Your task to perform on an android device: Add razer deathadder to the cart on ebay.com, then select checkout. Image 0: 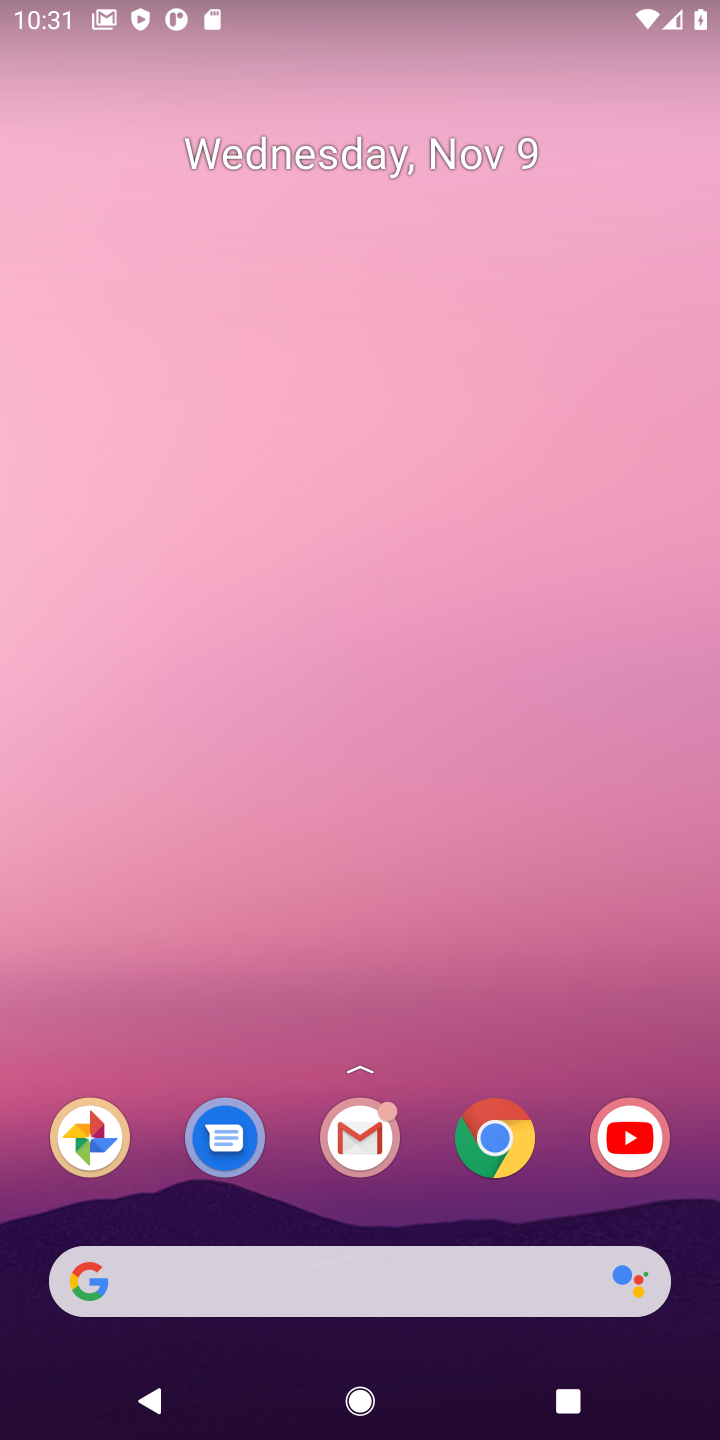
Step 0: drag from (414, 1210) to (407, 177)
Your task to perform on an android device: Add razer deathadder to the cart on ebay.com, then select checkout. Image 1: 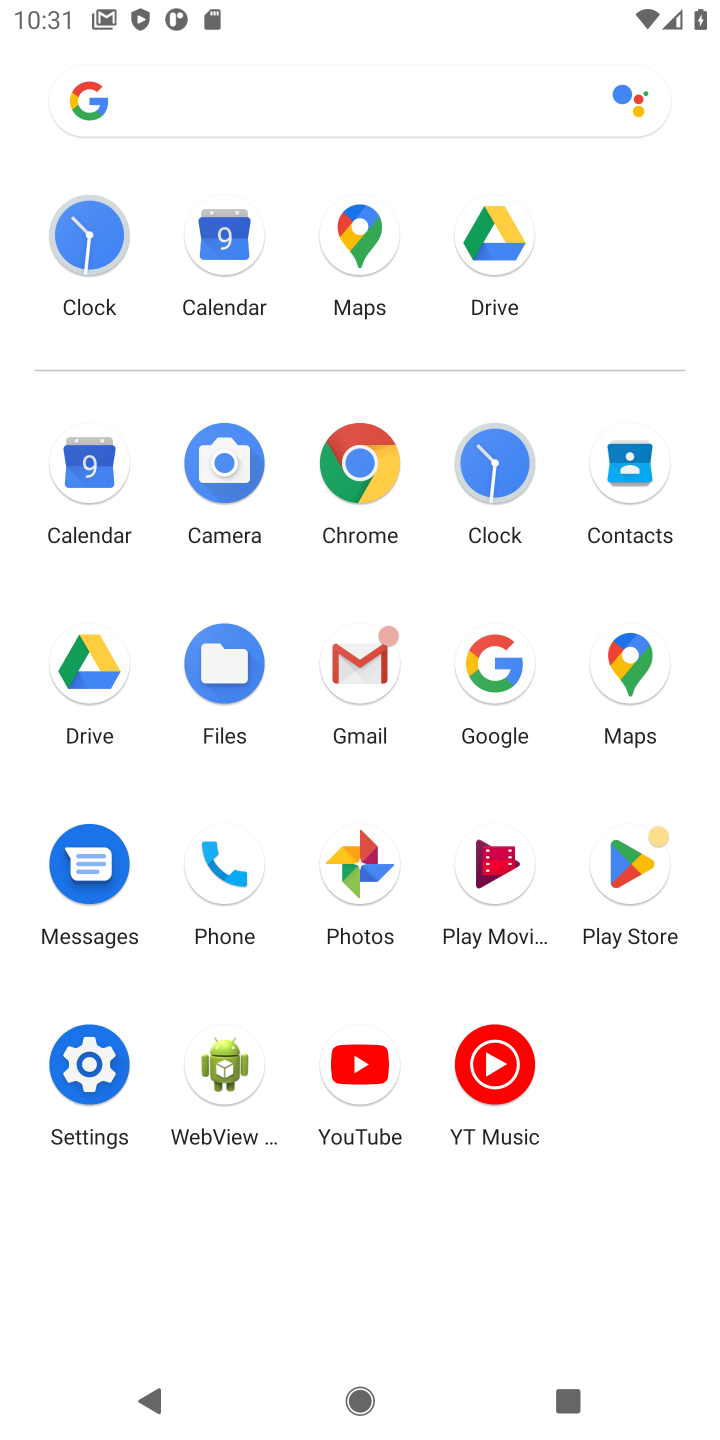
Step 1: click (342, 452)
Your task to perform on an android device: Add razer deathadder to the cart on ebay.com, then select checkout. Image 2: 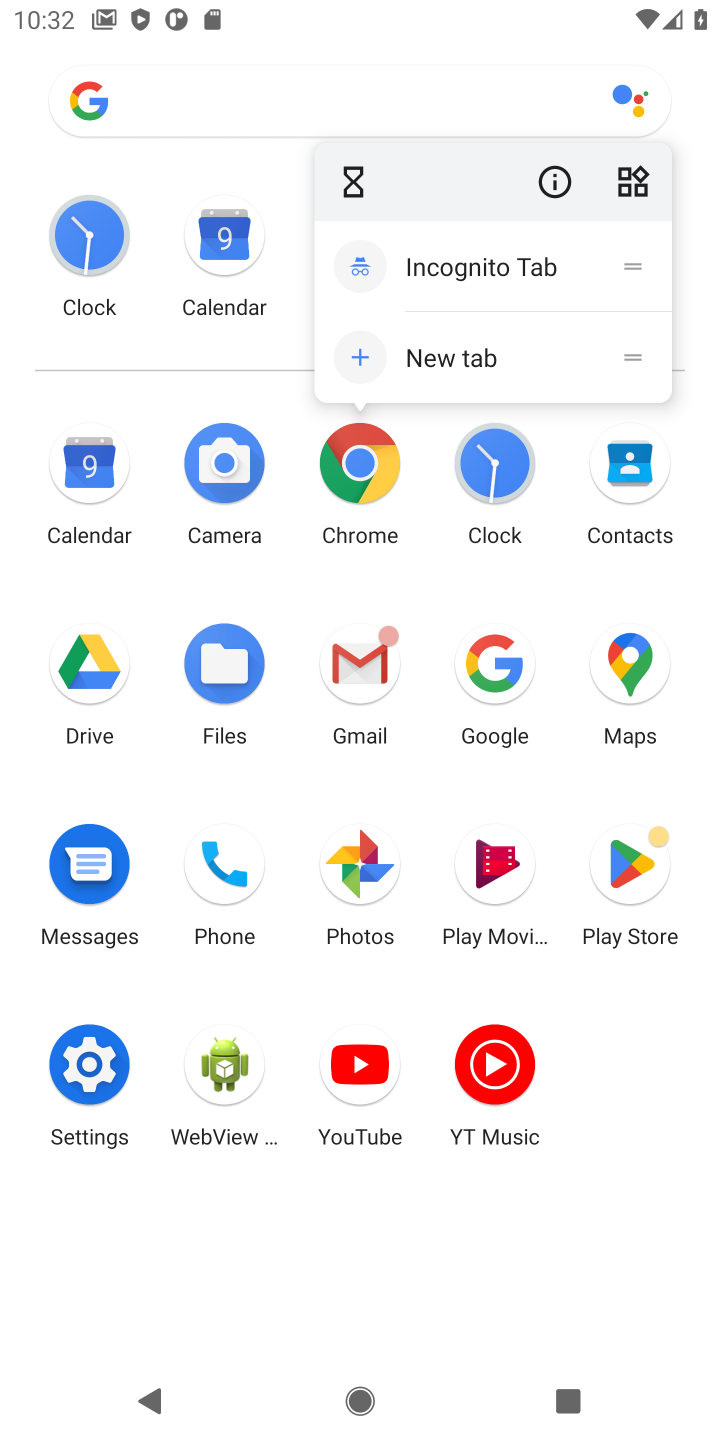
Step 2: click (356, 458)
Your task to perform on an android device: Add razer deathadder to the cart on ebay.com, then select checkout. Image 3: 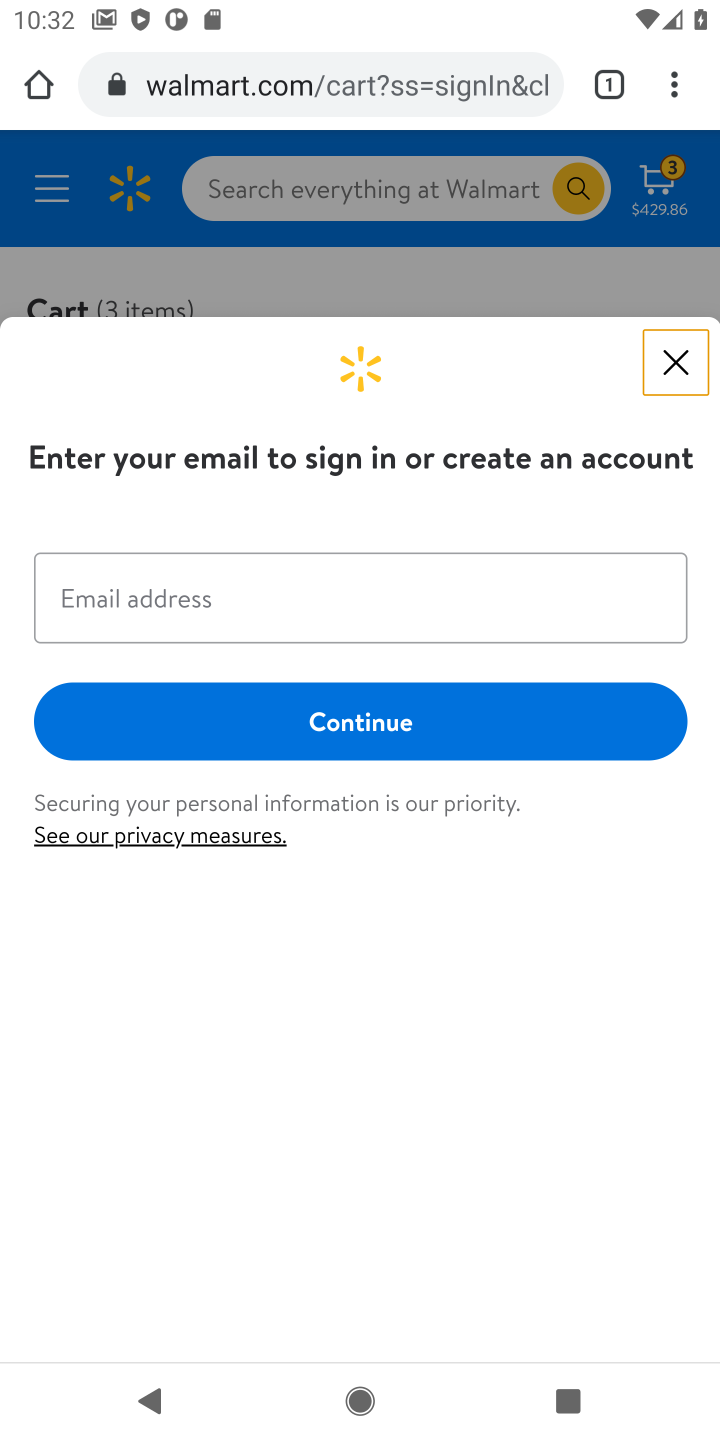
Step 3: click (413, 103)
Your task to perform on an android device: Add razer deathadder to the cart on ebay.com, then select checkout. Image 4: 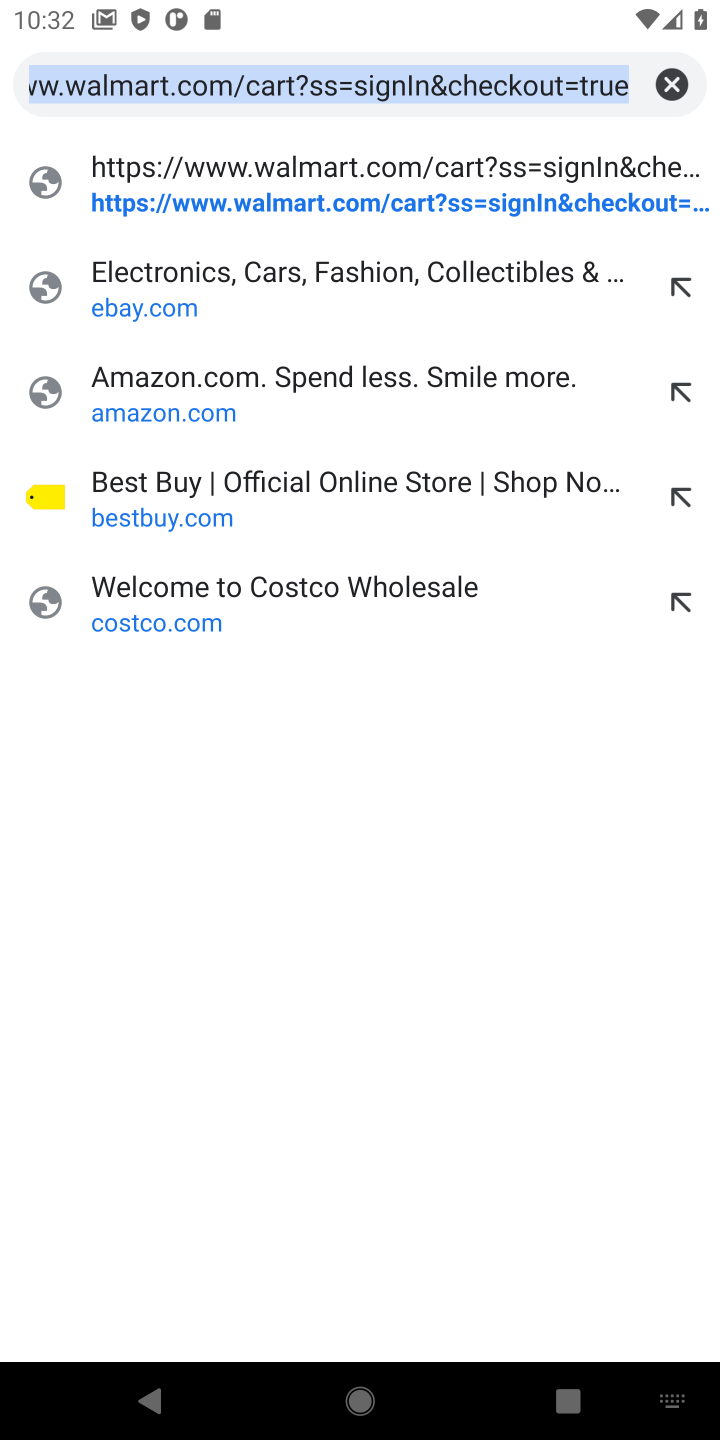
Step 4: type "ebay.com"
Your task to perform on an android device: Add razer deathadder to the cart on ebay.com, then select checkout. Image 5: 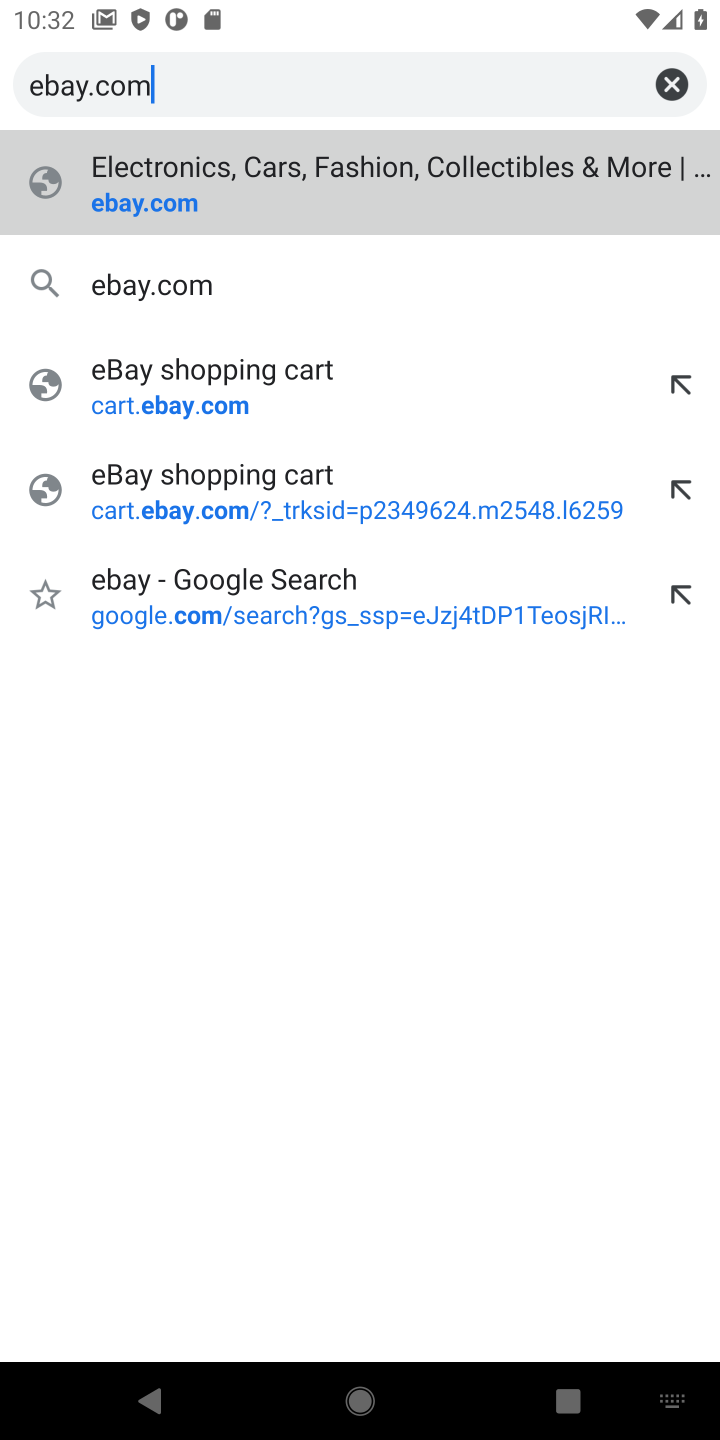
Step 5: press enter
Your task to perform on an android device: Add razer deathadder to the cart on ebay.com, then select checkout. Image 6: 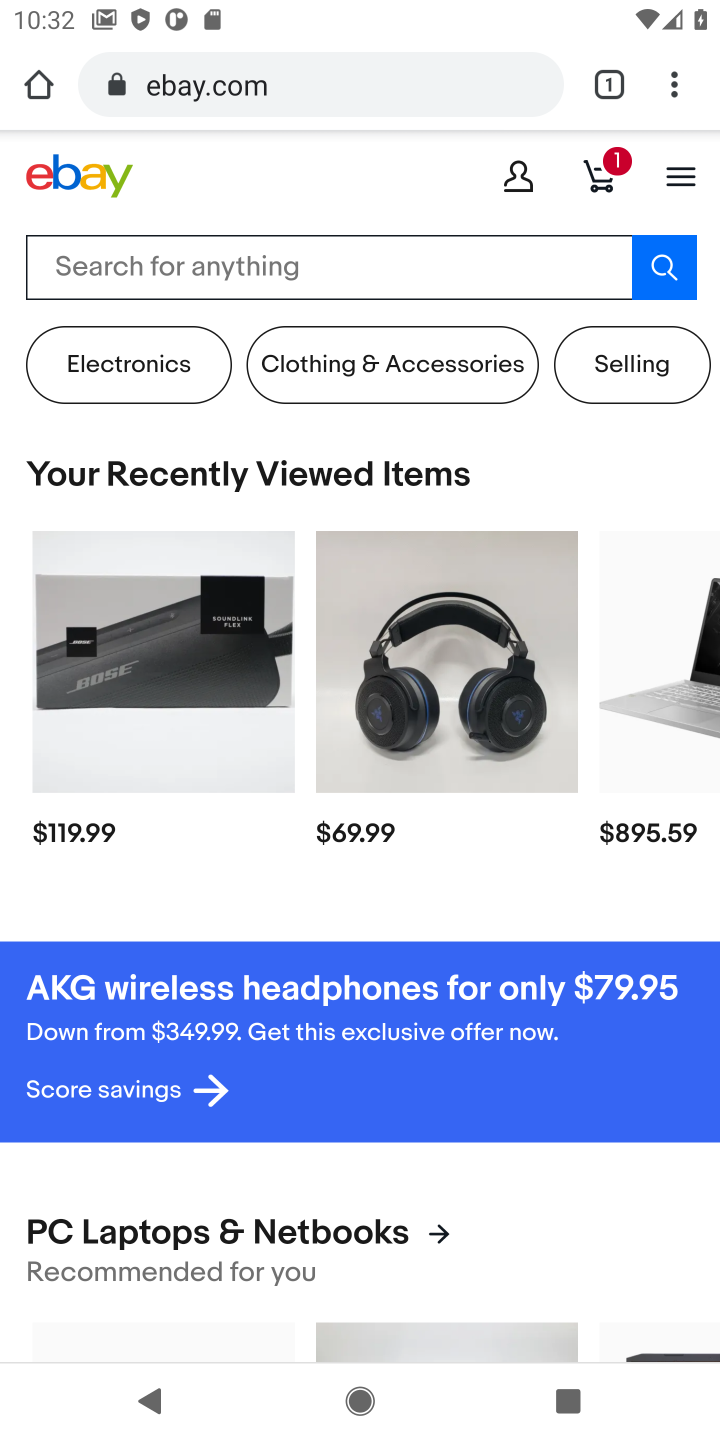
Step 6: click (339, 268)
Your task to perform on an android device: Add razer deathadder to the cart on ebay.com, then select checkout. Image 7: 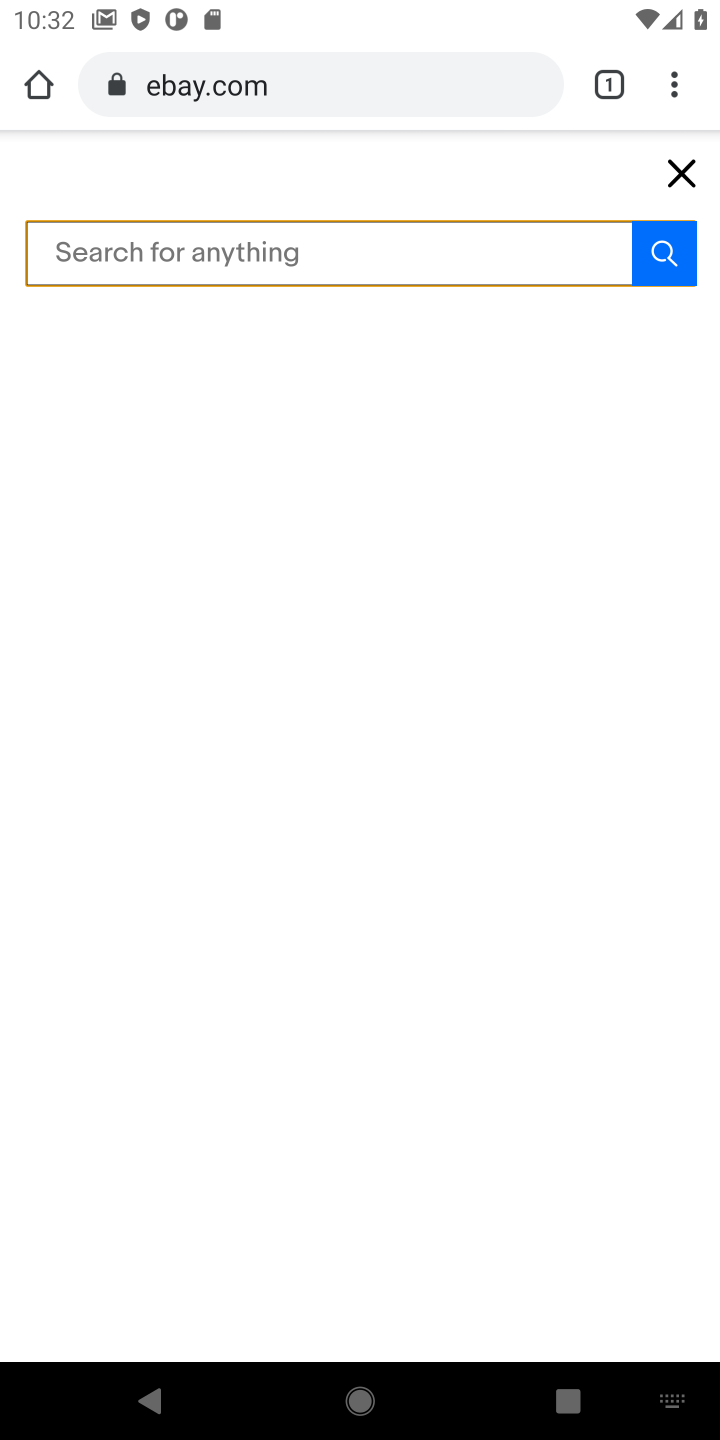
Step 7: type "razer deathadder"
Your task to perform on an android device: Add razer deathadder to the cart on ebay.com, then select checkout. Image 8: 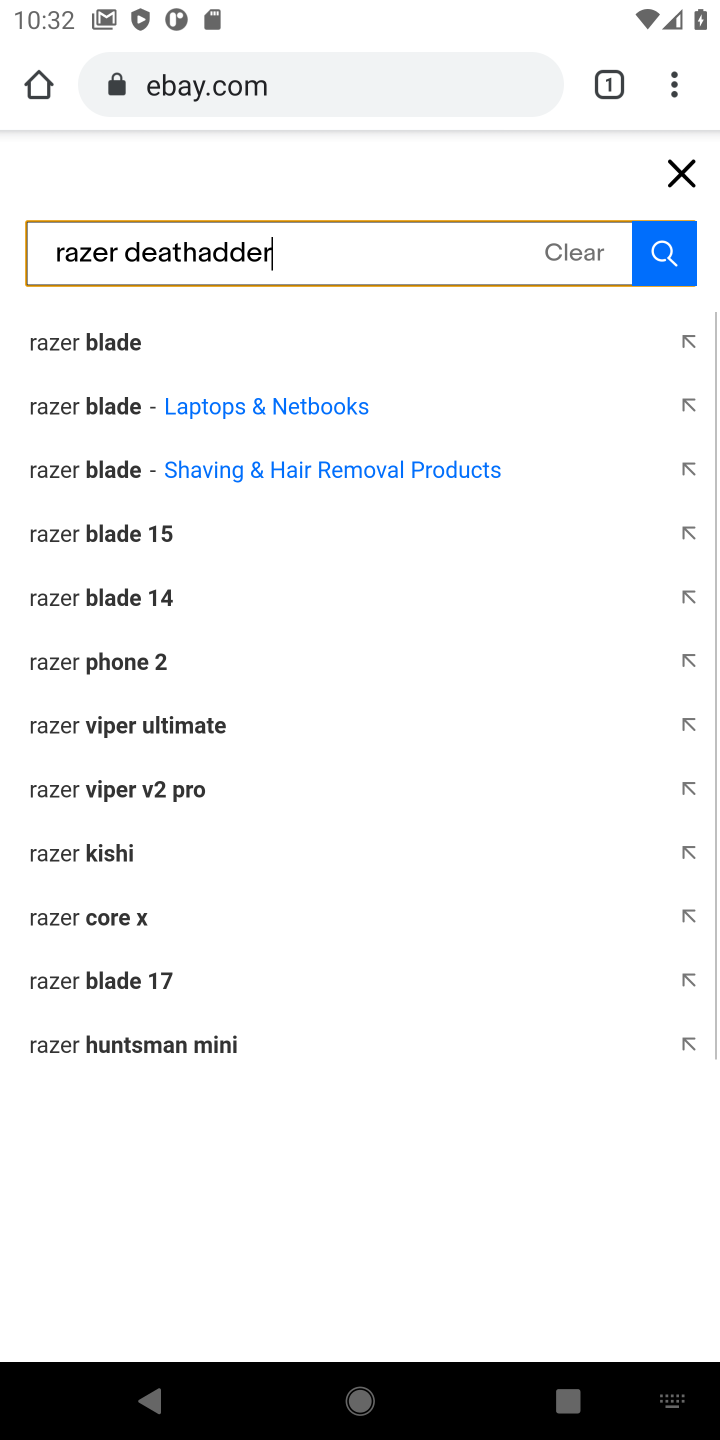
Step 8: press enter
Your task to perform on an android device: Add razer deathadder to the cart on ebay.com, then select checkout. Image 9: 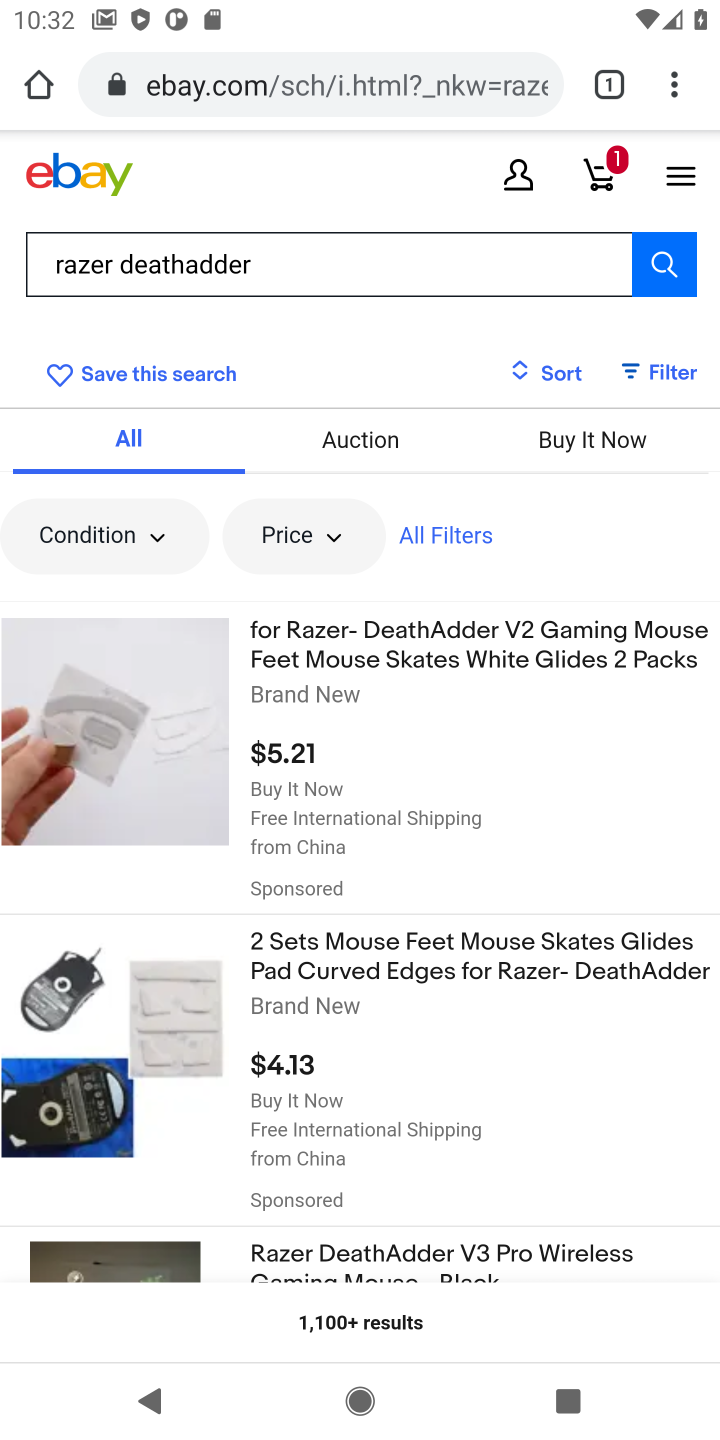
Step 9: click (532, 665)
Your task to perform on an android device: Add razer deathadder to the cart on ebay.com, then select checkout. Image 10: 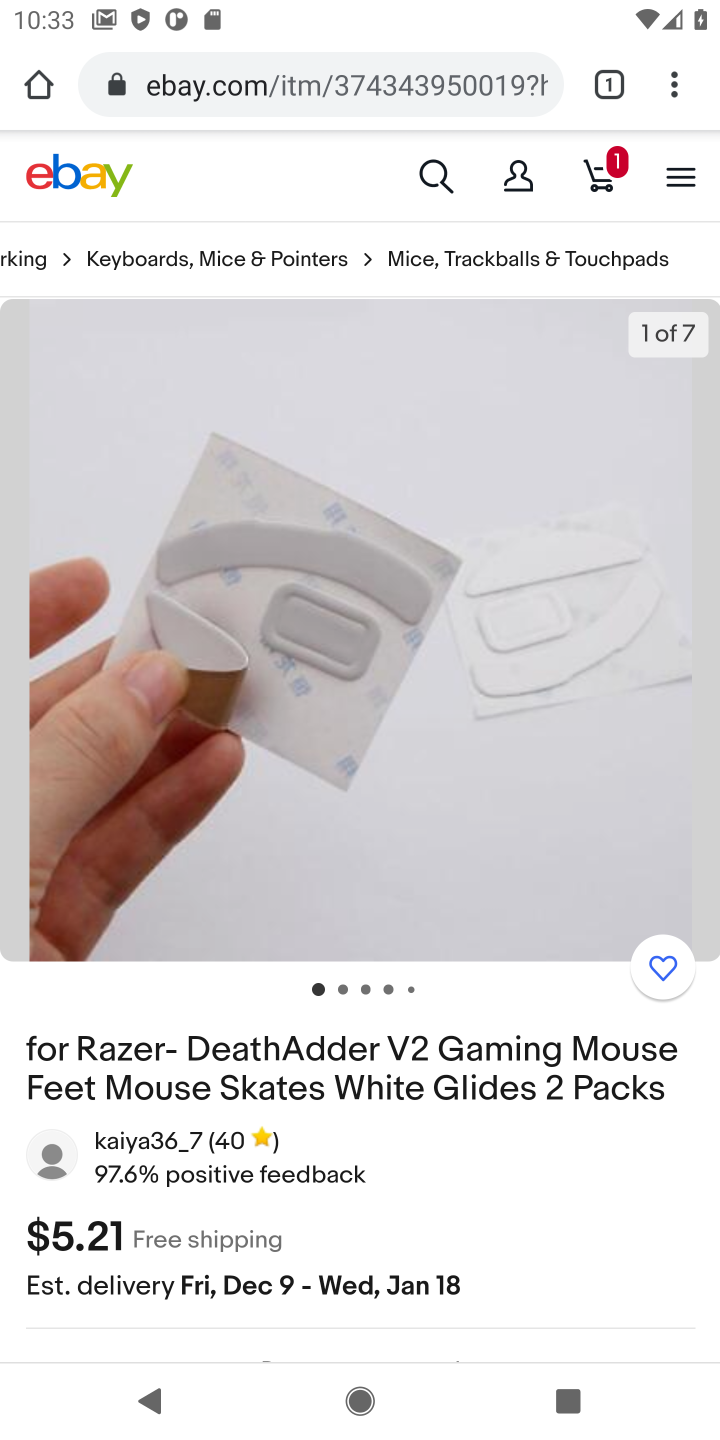
Step 10: drag from (557, 812) to (484, 139)
Your task to perform on an android device: Add razer deathadder to the cart on ebay.com, then select checkout. Image 11: 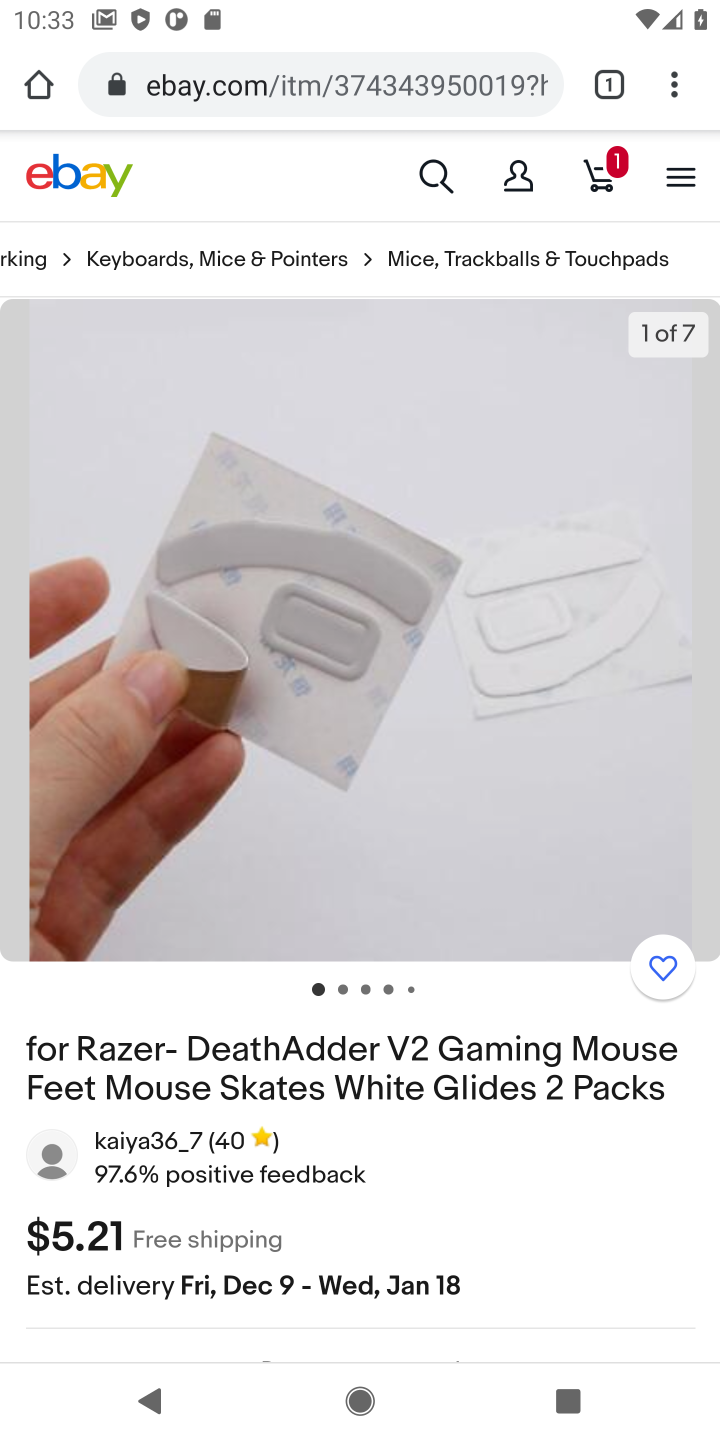
Step 11: drag from (496, 1022) to (447, 150)
Your task to perform on an android device: Add razer deathadder to the cart on ebay.com, then select checkout. Image 12: 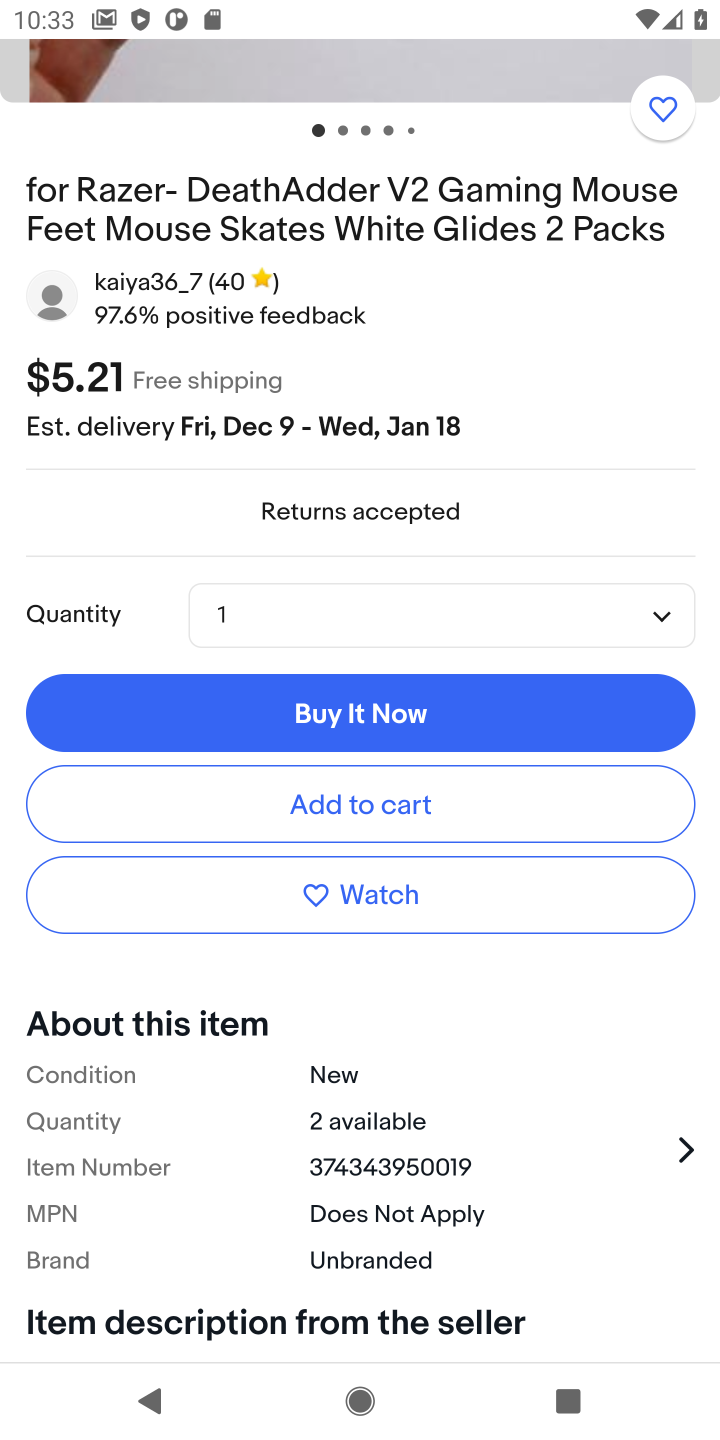
Step 12: click (398, 803)
Your task to perform on an android device: Add razer deathadder to the cart on ebay.com, then select checkout. Image 13: 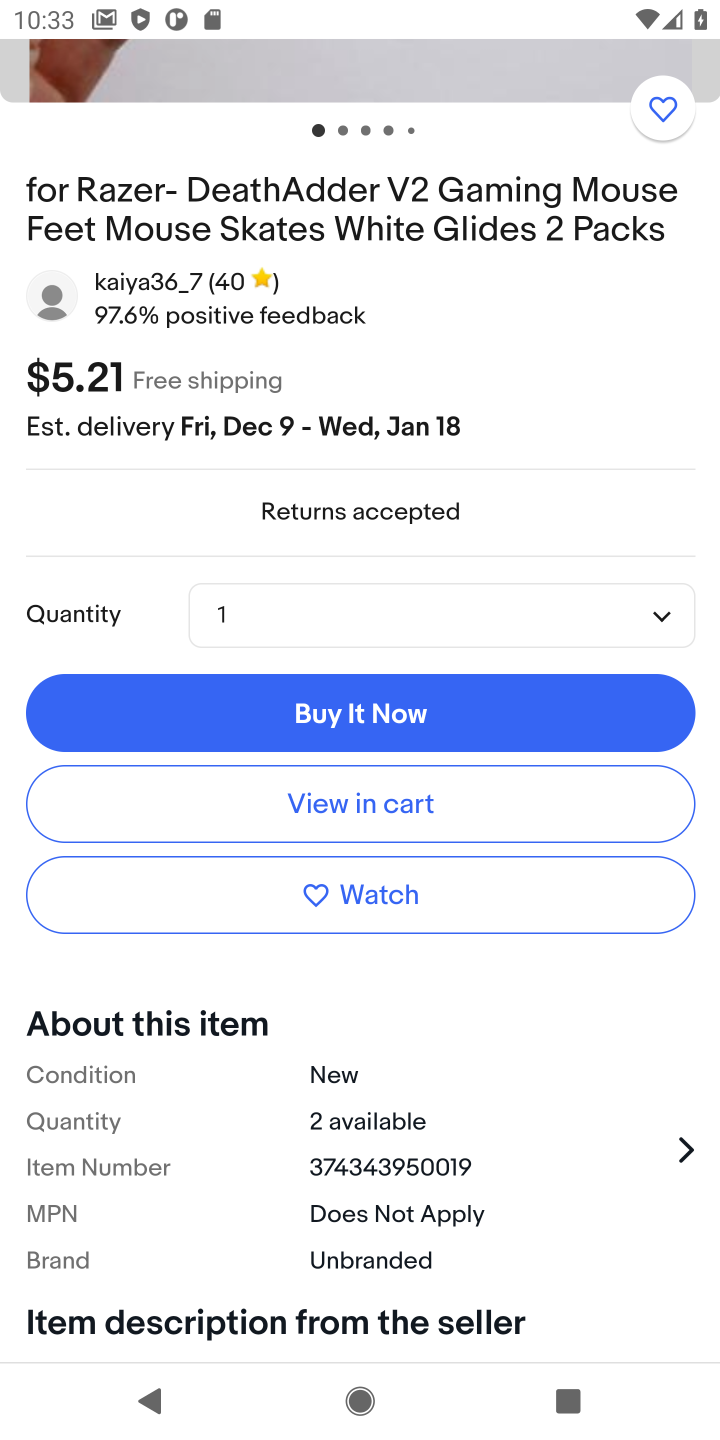
Step 13: click (399, 797)
Your task to perform on an android device: Add razer deathadder to the cart on ebay.com, then select checkout. Image 14: 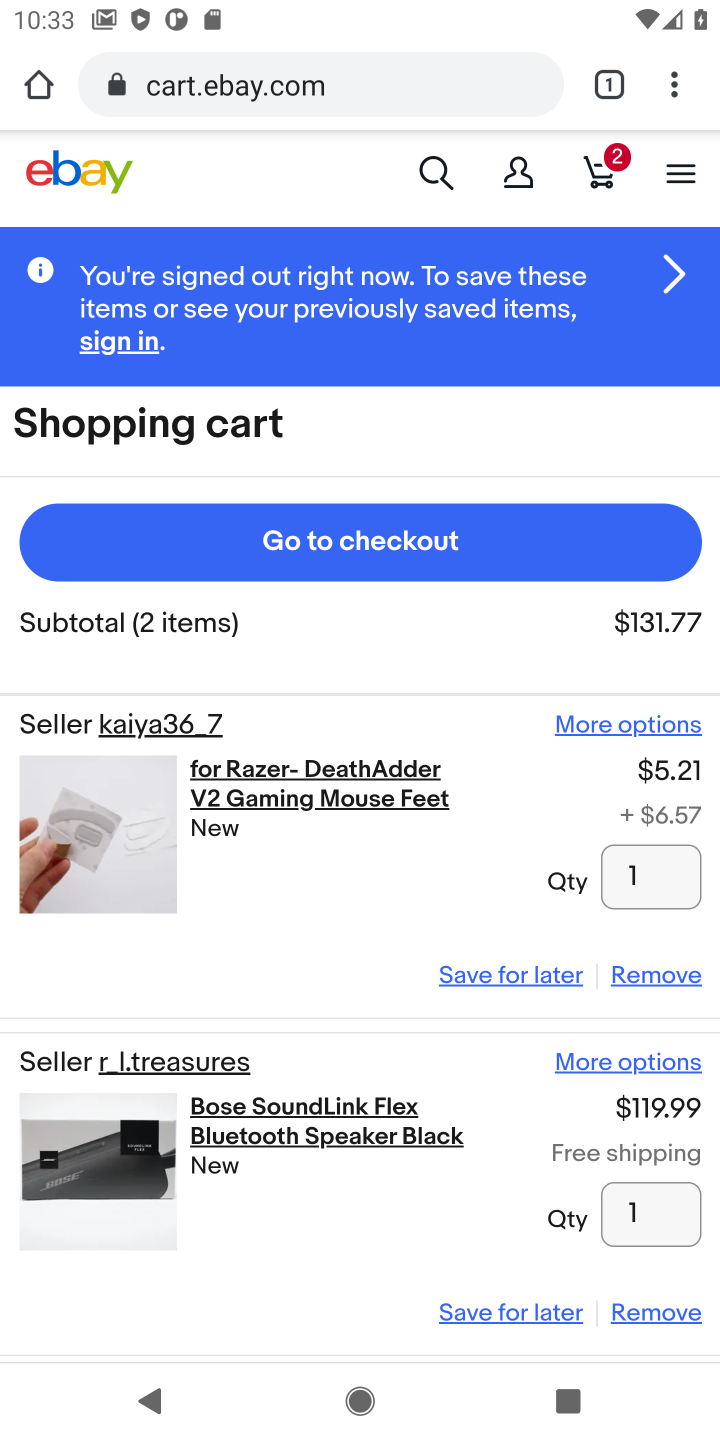
Step 14: click (523, 532)
Your task to perform on an android device: Add razer deathadder to the cart on ebay.com, then select checkout. Image 15: 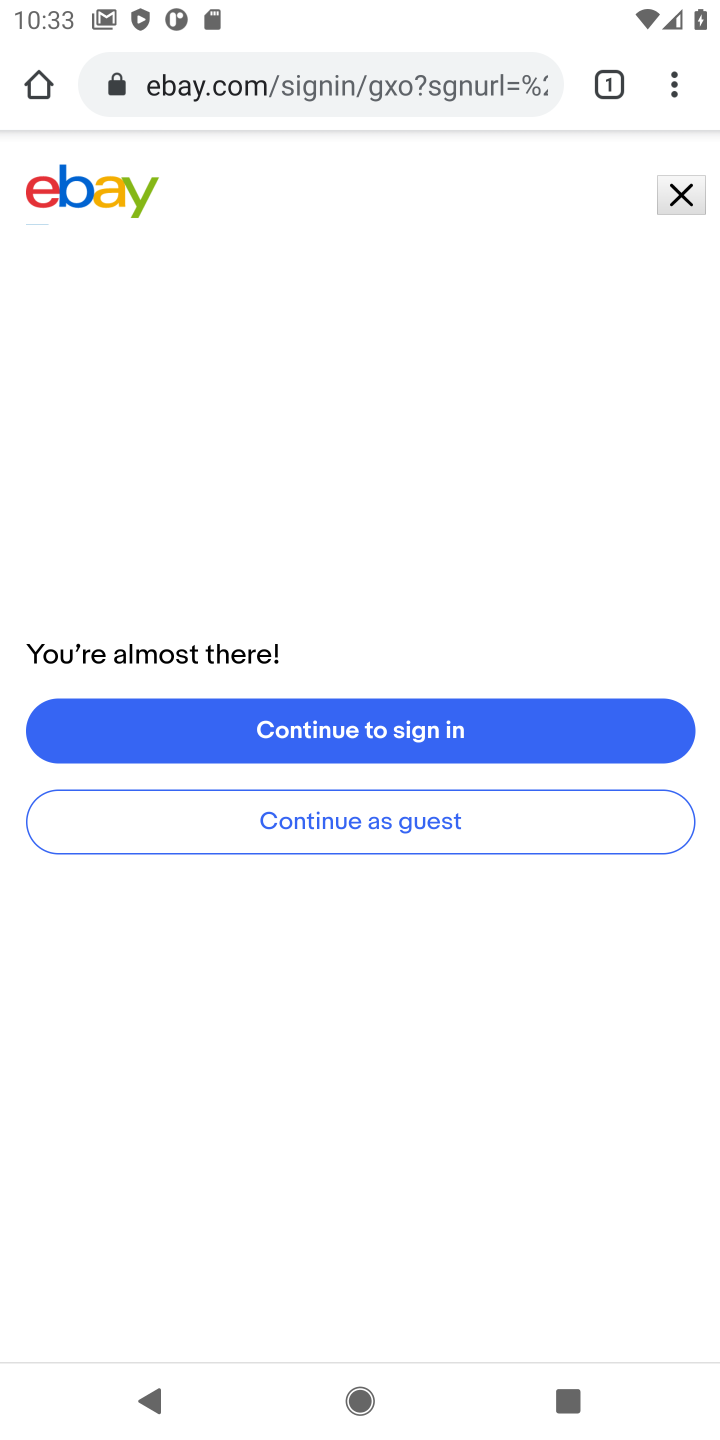
Step 15: task complete